Your task to perform on an android device: open app "The Home Depot" Image 0: 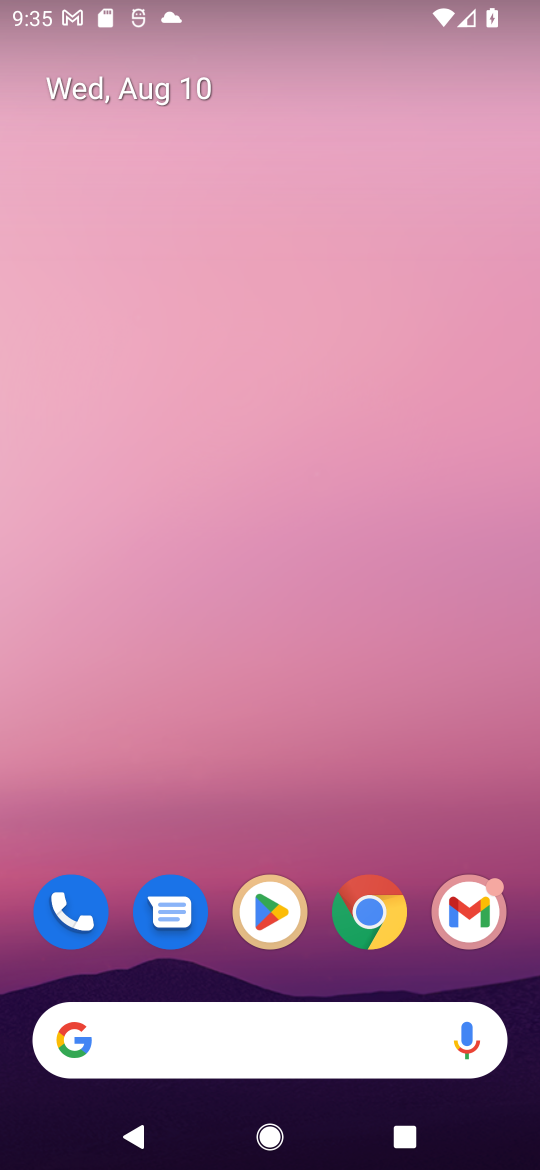
Step 0: drag from (509, 989) to (316, 8)
Your task to perform on an android device: open app "The Home Depot" Image 1: 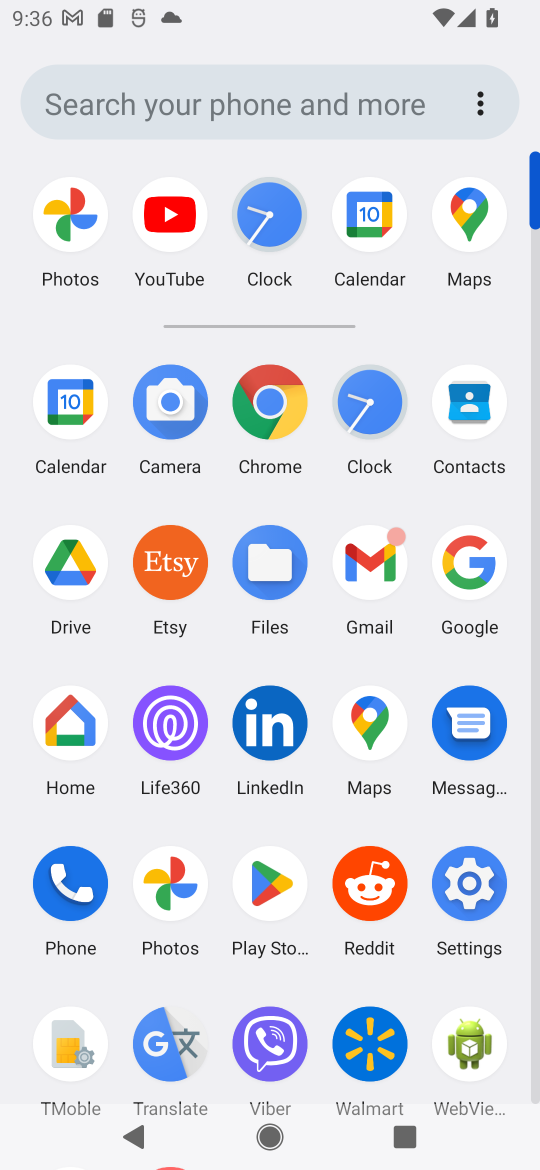
Step 1: click (278, 898)
Your task to perform on an android device: open app "The Home Depot" Image 2: 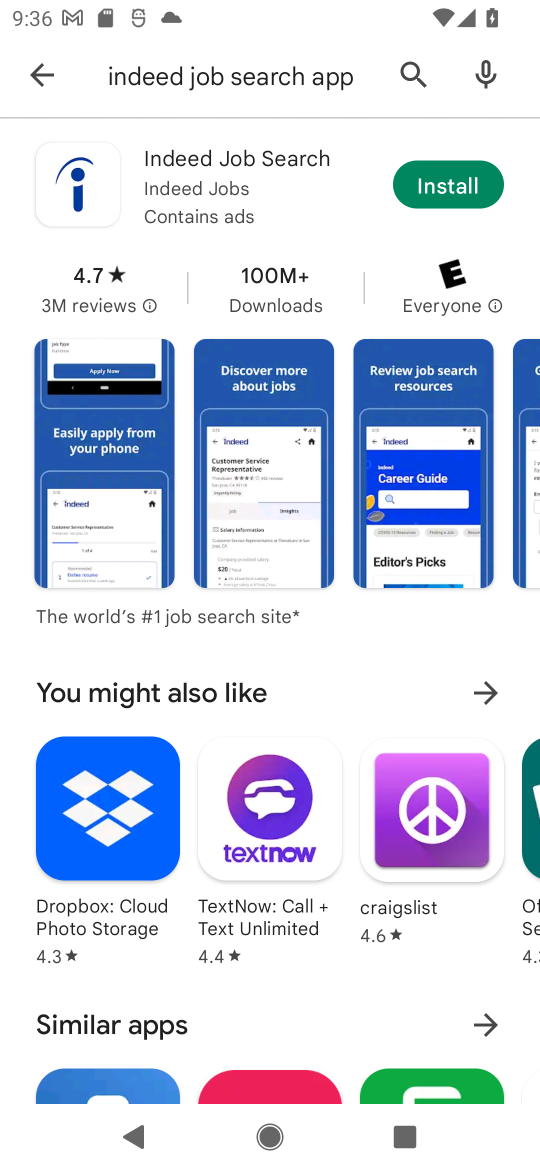
Step 2: press back button
Your task to perform on an android device: open app "The Home Depot" Image 3: 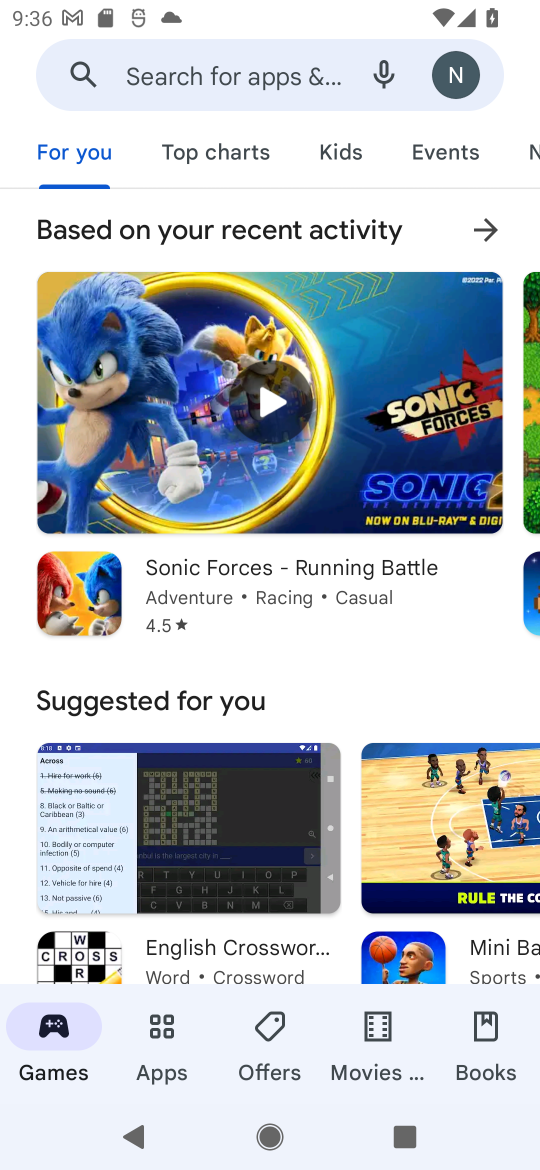
Step 3: click (251, 70)
Your task to perform on an android device: open app "The Home Depot" Image 4: 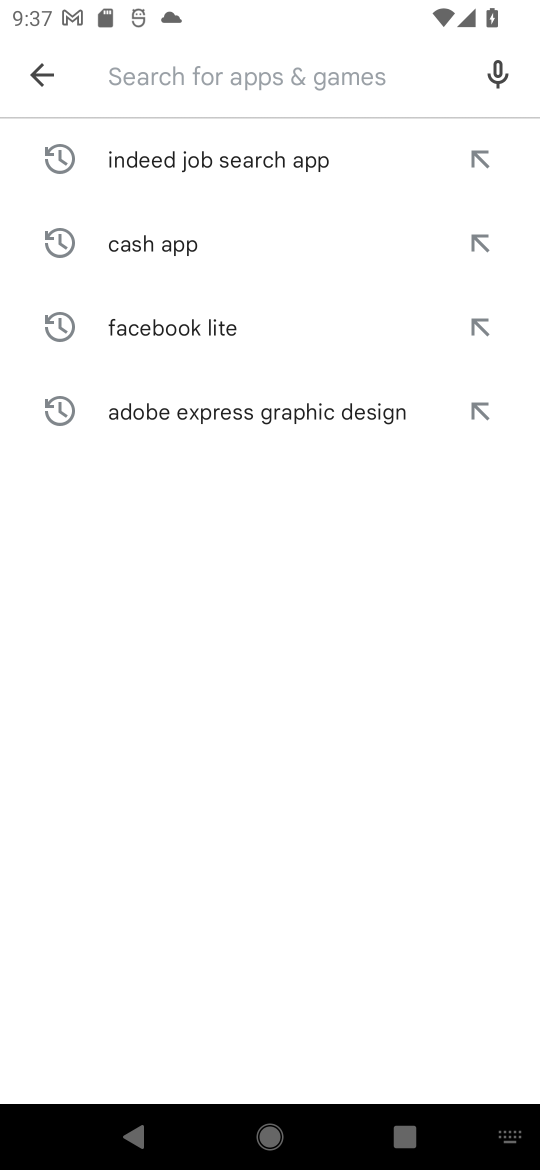
Step 4: type "The Home Depot"
Your task to perform on an android device: open app "The Home Depot" Image 5: 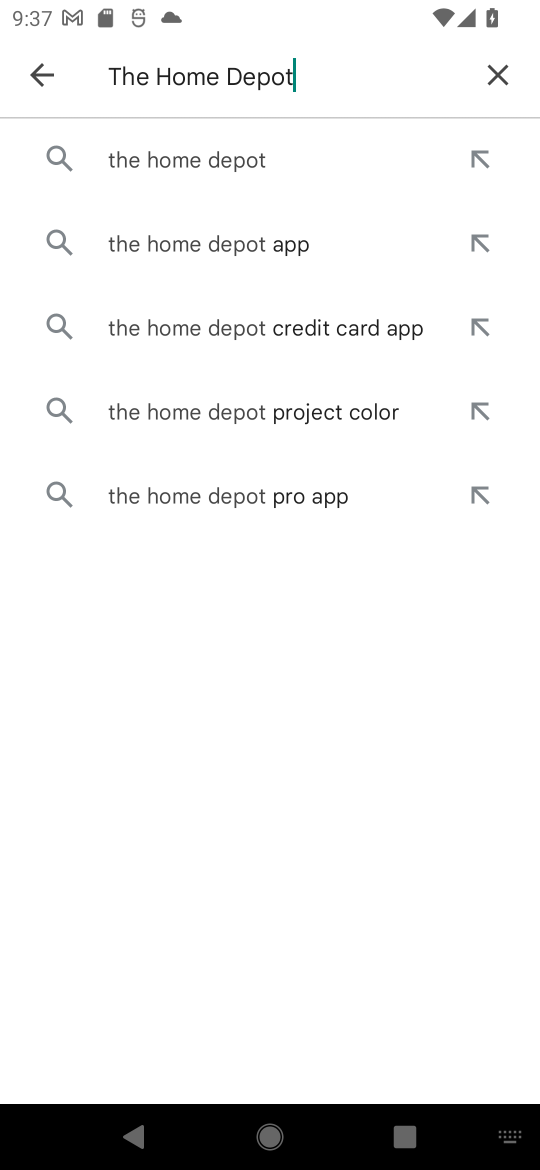
Step 5: click (96, 174)
Your task to perform on an android device: open app "The Home Depot" Image 6: 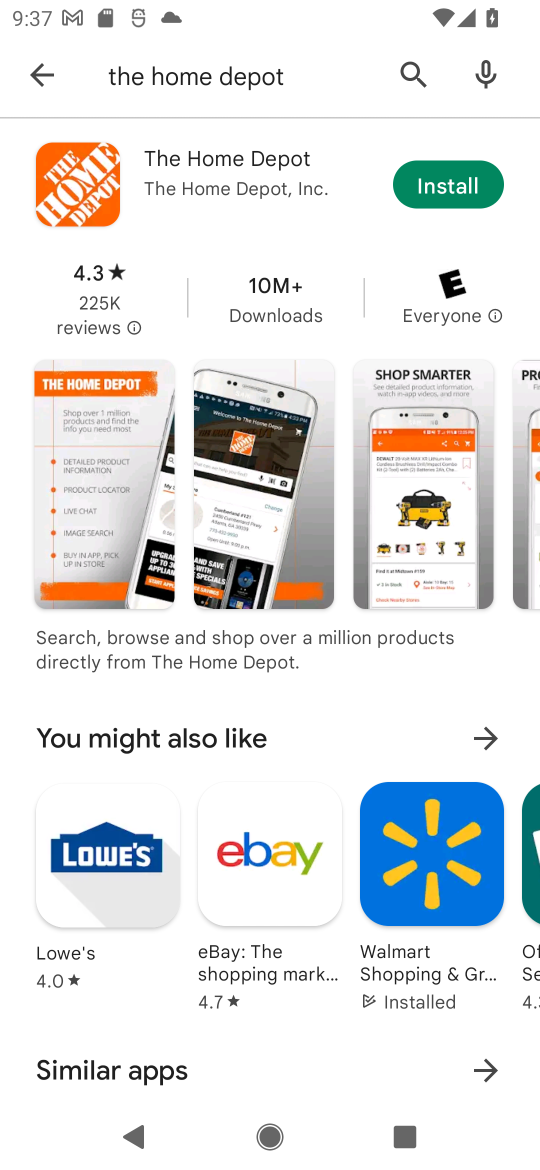
Step 6: task complete